Your task to perform on an android device: remove spam from my inbox in the gmail app Image 0: 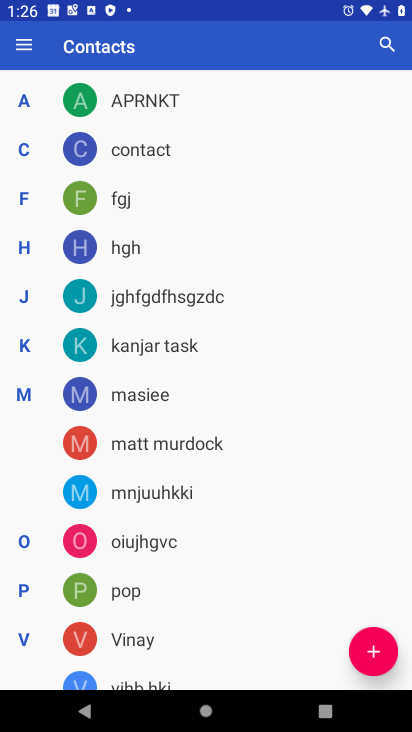
Step 0: press home button
Your task to perform on an android device: remove spam from my inbox in the gmail app Image 1: 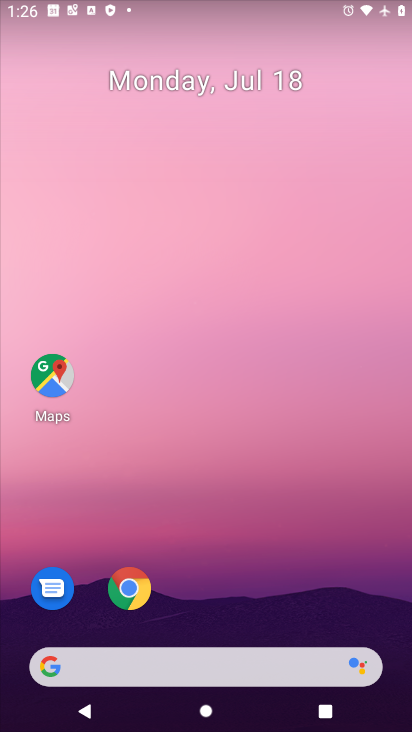
Step 1: drag from (232, 597) to (246, 180)
Your task to perform on an android device: remove spam from my inbox in the gmail app Image 2: 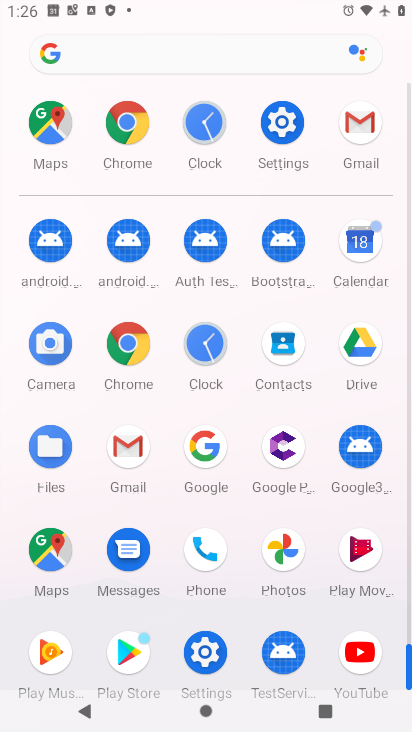
Step 2: drag from (351, 469) to (366, 341)
Your task to perform on an android device: remove spam from my inbox in the gmail app Image 3: 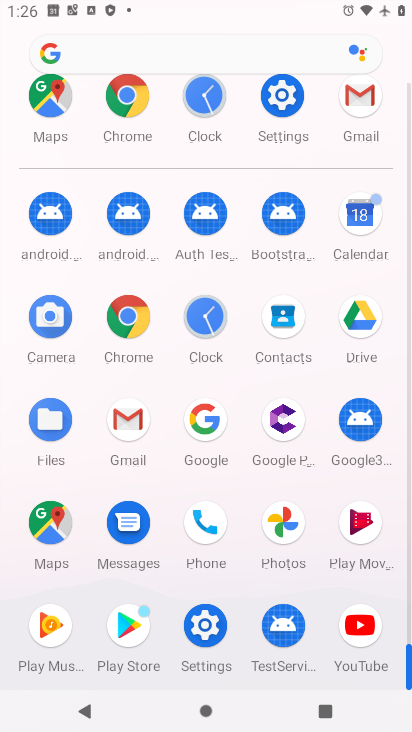
Step 3: click (112, 425)
Your task to perform on an android device: remove spam from my inbox in the gmail app Image 4: 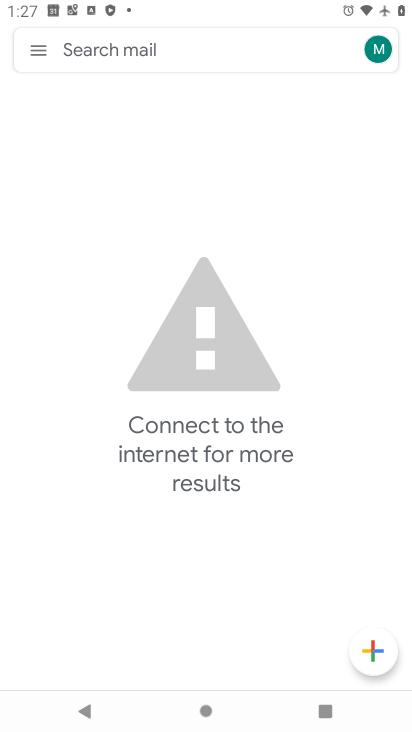
Step 4: click (36, 53)
Your task to perform on an android device: remove spam from my inbox in the gmail app Image 5: 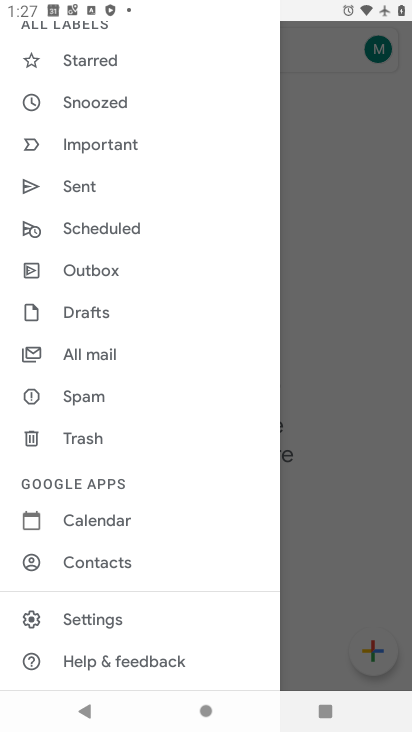
Step 5: click (112, 400)
Your task to perform on an android device: remove spam from my inbox in the gmail app Image 6: 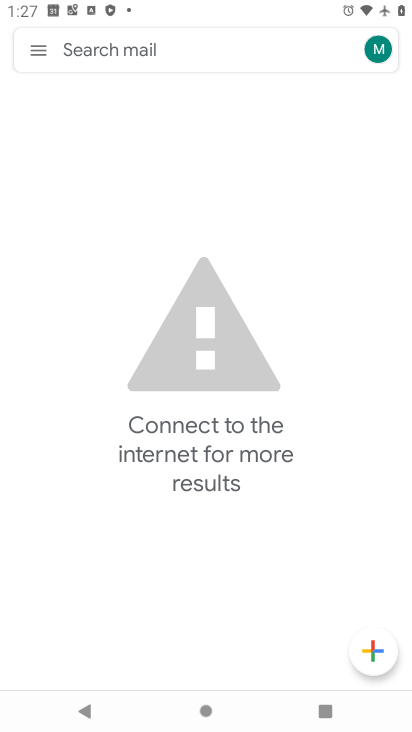
Step 6: task complete